Your task to perform on an android device: Go to Yahoo.com Image 0: 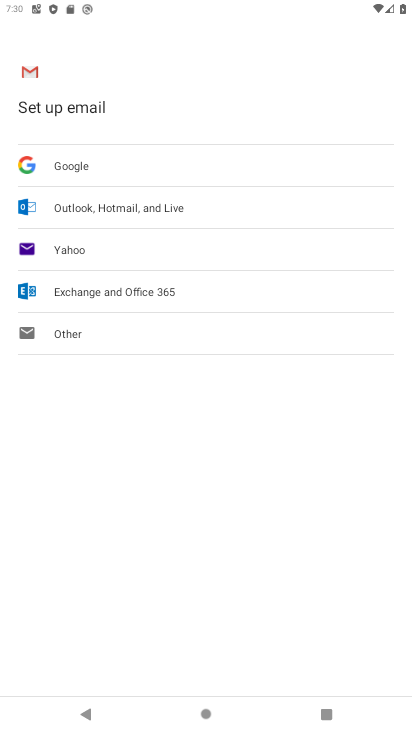
Step 0: press home button
Your task to perform on an android device: Go to Yahoo.com Image 1: 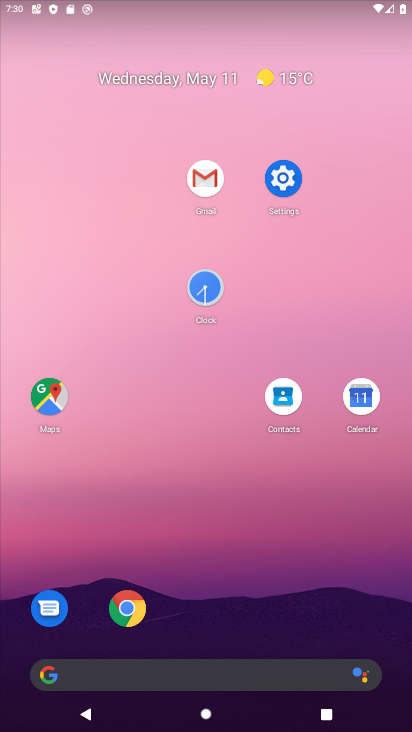
Step 1: click (115, 606)
Your task to perform on an android device: Go to Yahoo.com Image 2: 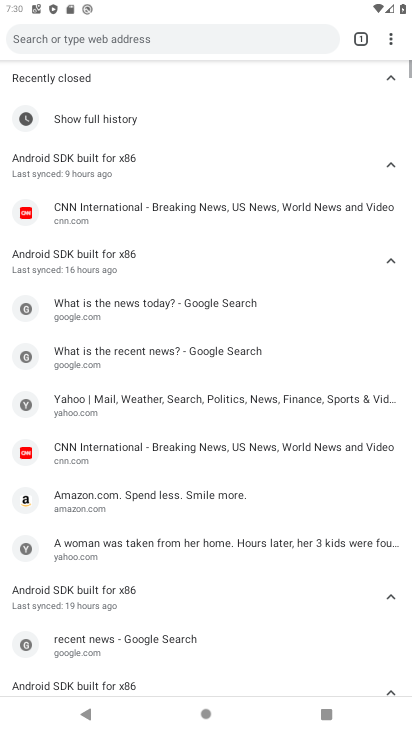
Step 2: click (165, 44)
Your task to perform on an android device: Go to Yahoo.com Image 3: 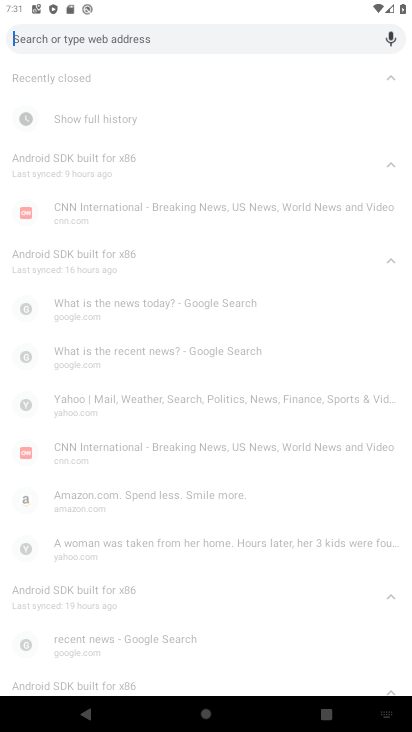
Step 3: type "yahoo.com"
Your task to perform on an android device: Go to Yahoo.com Image 4: 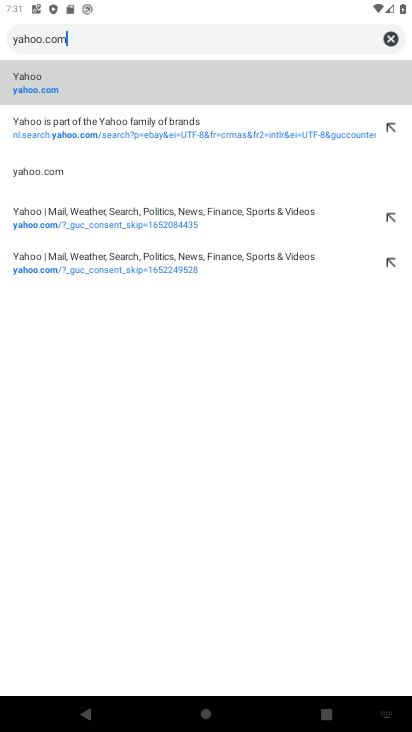
Step 4: click (58, 144)
Your task to perform on an android device: Go to Yahoo.com Image 5: 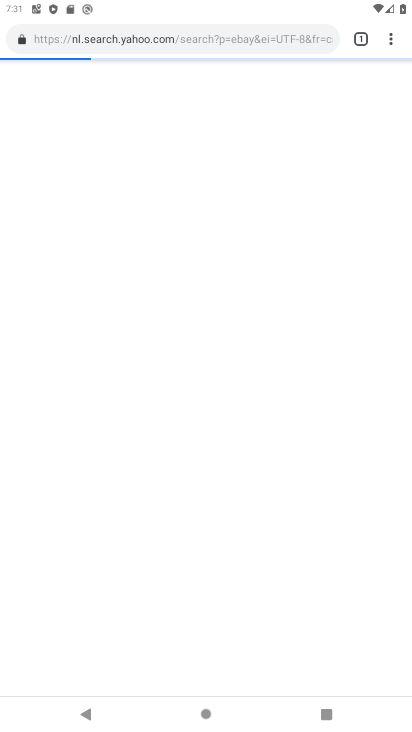
Step 5: task complete